Your task to perform on an android device: toggle javascript in the chrome app Image 0: 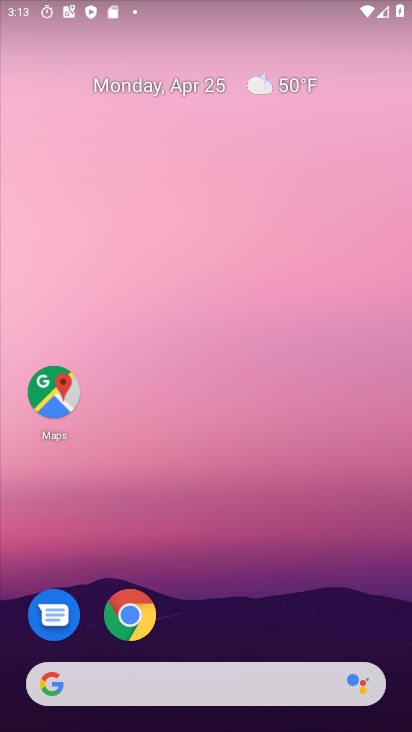
Step 0: click (131, 613)
Your task to perform on an android device: toggle javascript in the chrome app Image 1: 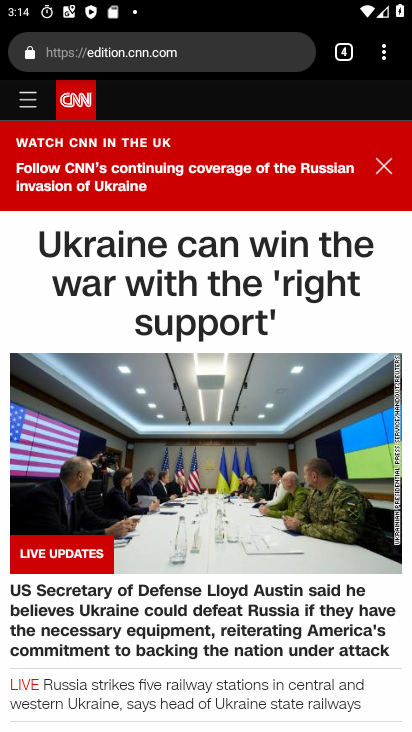
Step 1: click (386, 62)
Your task to perform on an android device: toggle javascript in the chrome app Image 2: 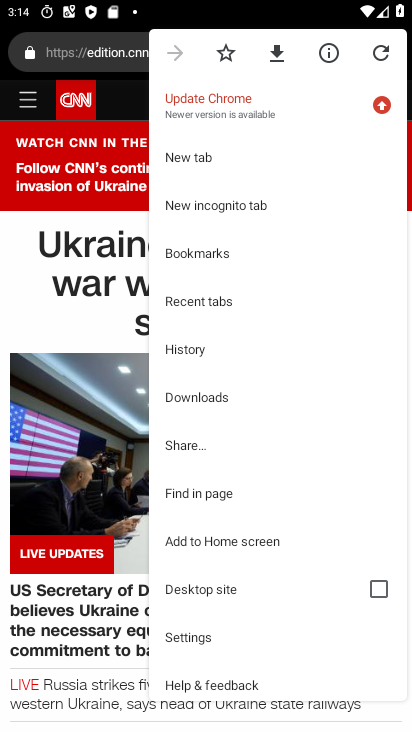
Step 2: click (198, 633)
Your task to perform on an android device: toggle javascript in the chrome app Image 3: 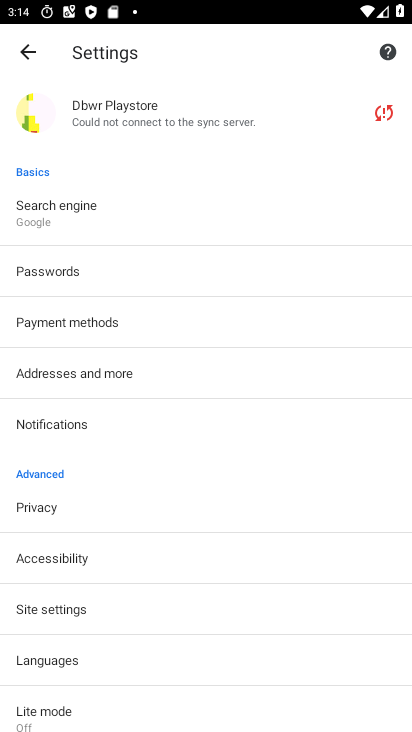
Step 3: click (51, 607)
Your task to perform on an android device: toggle javascript in the chrome app Image 4: 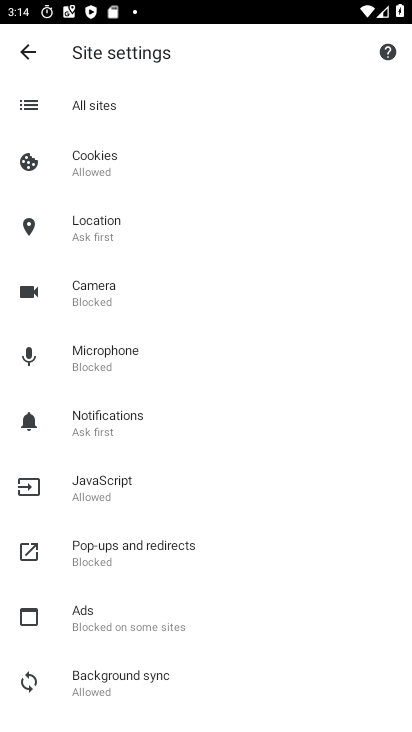
Step 4: click (102, 483)
Your task to perform on an android device: toggle javascript in the chrome app Image 5: 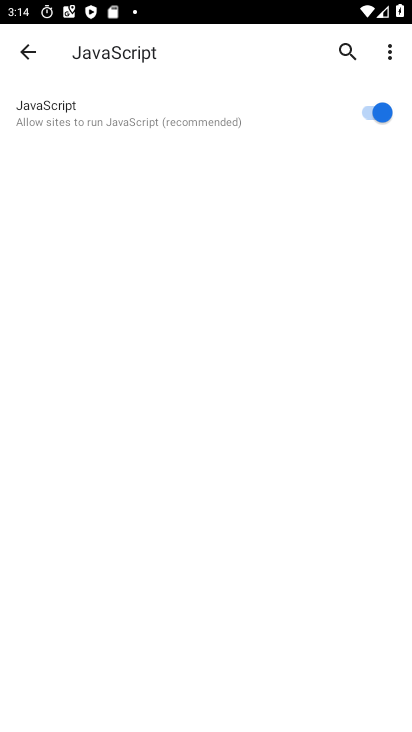
Step 5: click (365, 111)
Your task to perform on an android device: toggle javascript in the chrome app Image 6: 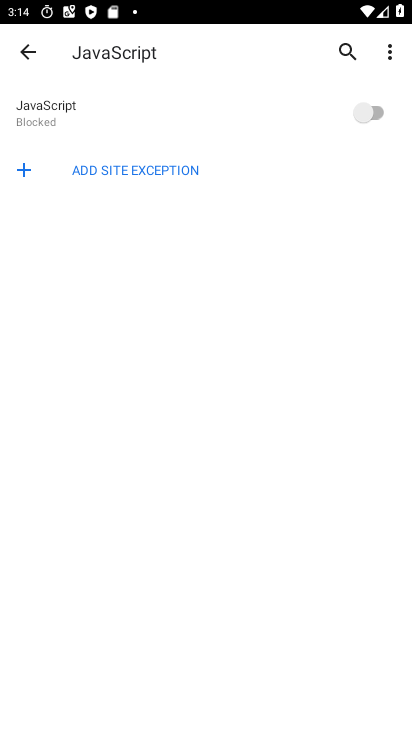
Step 6: task complete